Your task to perform on an android device: Open calendar and show me the third week of next month Image 0: 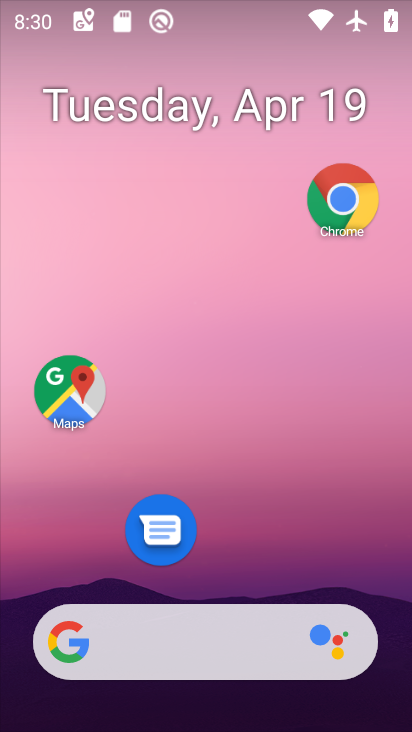
Step 0: drag from (203, 570) to (257, 243)
Your task to perform on an android device: Open calendar and show me the third week of next month Image 1: 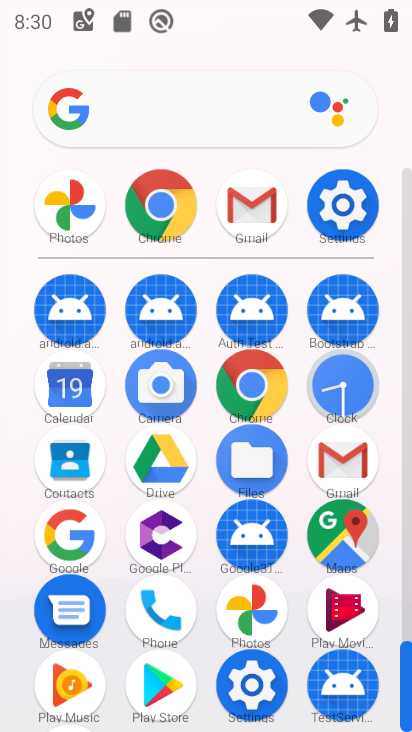
Step 1: click (80, 364)
Your task to perform on an android device: Open calendar and show me the third week of next month Image 2: 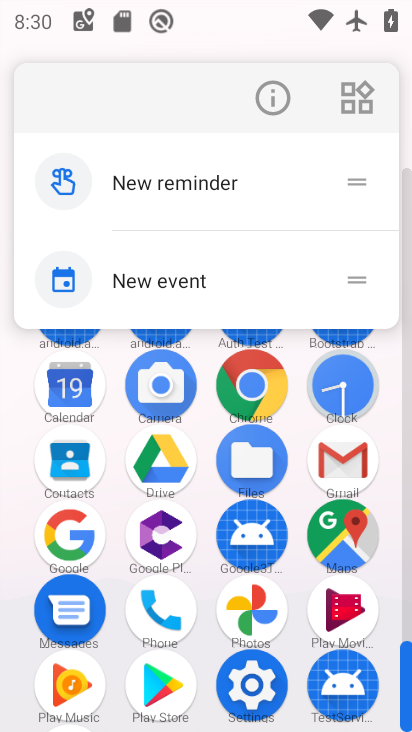
Step 2: click (270, 86)
Your task to perform on an android device: Open calendar and show me the third week of next month Image 3: 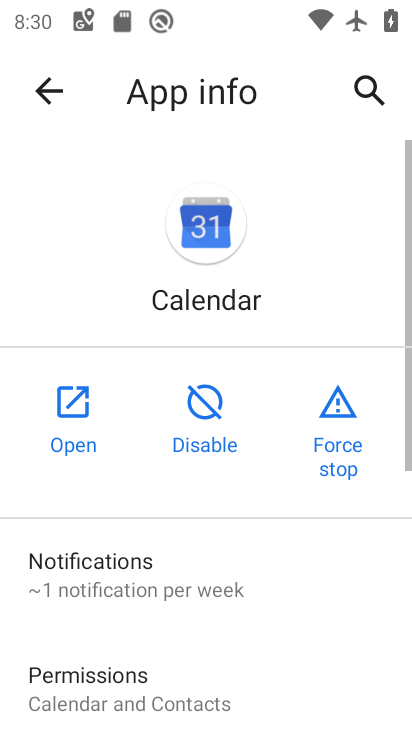
Step 3: click (72, 450)
Your task to perform on an android device: Open calendar and show me the third week of next month Image 4: 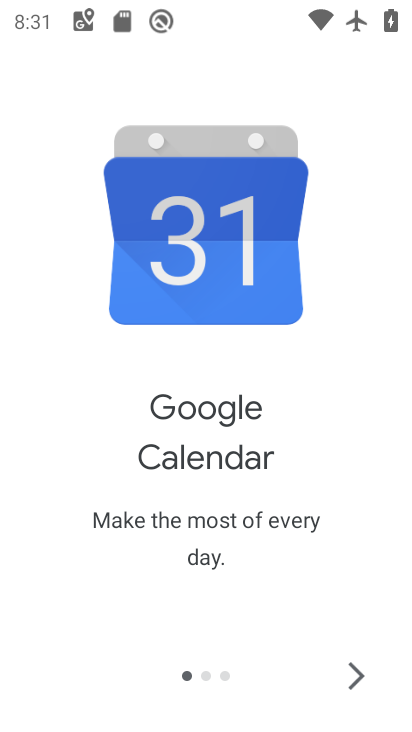
Step 4: click (352, 664)
Your task to perform on an android device: Open calendar and show me the third week of next month Image 5: 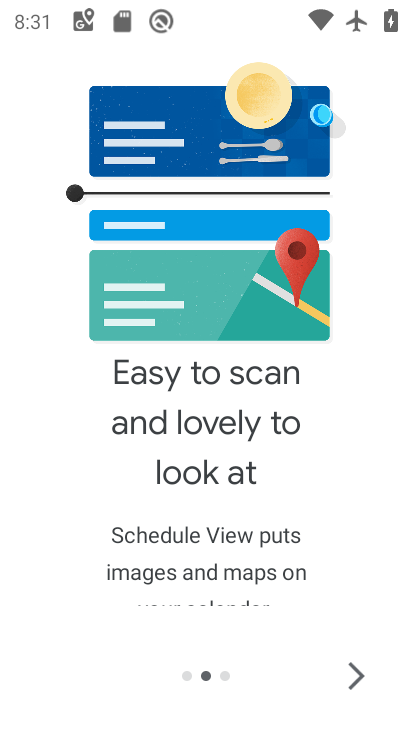
Step 5: click (351, 665)
Your task to perform on an android device: Open calendar and show me the third week of next month Image 6: 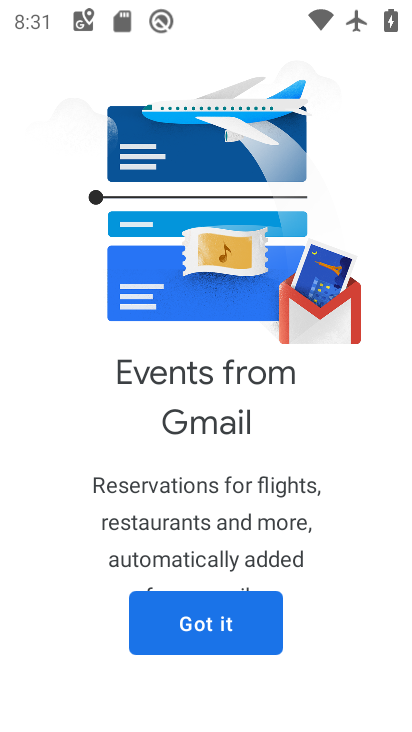
Step 6: click (217, 640)
Your task to perform on an android device: Open calendar and show me the third week of next month Image 7: 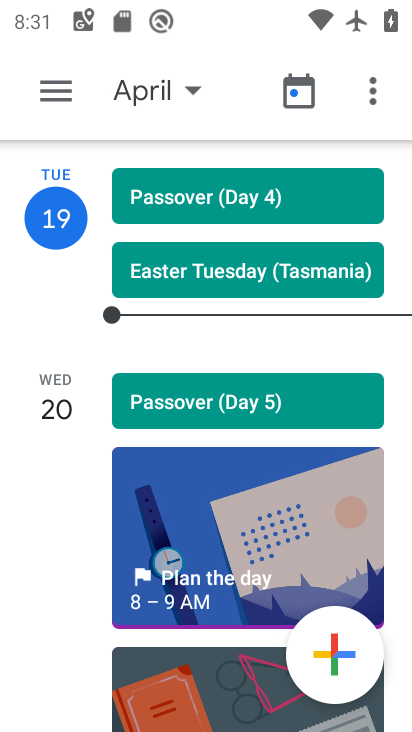
Step 7: click (179, 110)
Your task to perform on an android device: Open calendar and show me the third week of next month Image 8: 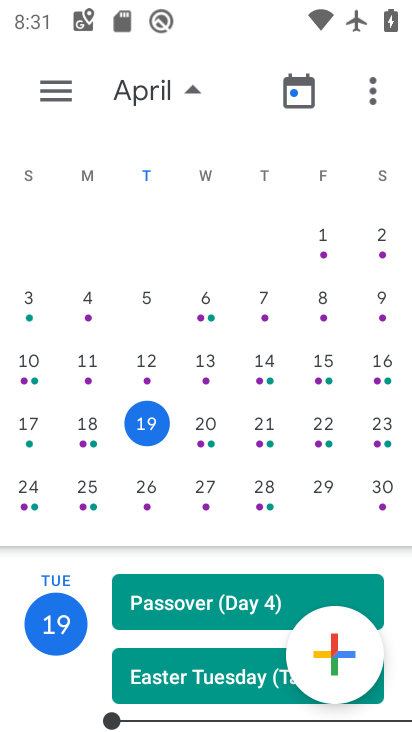
Step 8: drag from (326, 362) to (6, 372)
Your task to perform on an android device: Open calendar and show me the third week of next month Image 9: 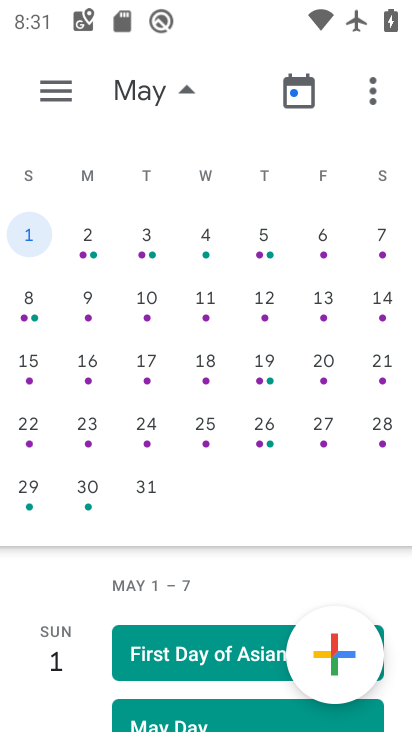
Step 9: click (264, 363)
Your task to perform on an android device: Open calendar and show me the third week of next month Image 10: 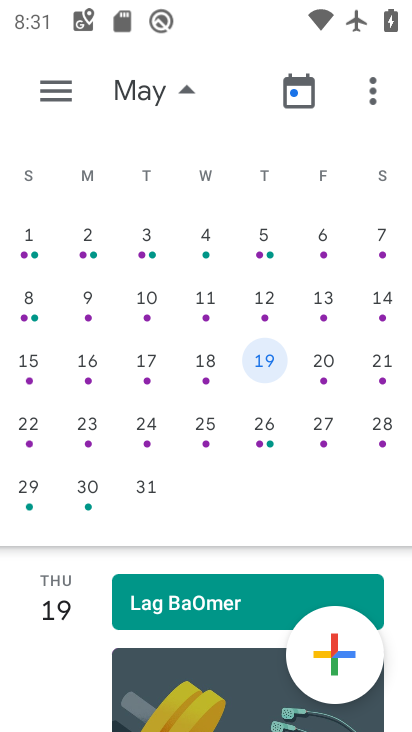
Step 10: task complete